Your task to perform on an android device: Toggle the flashlight Image 0: 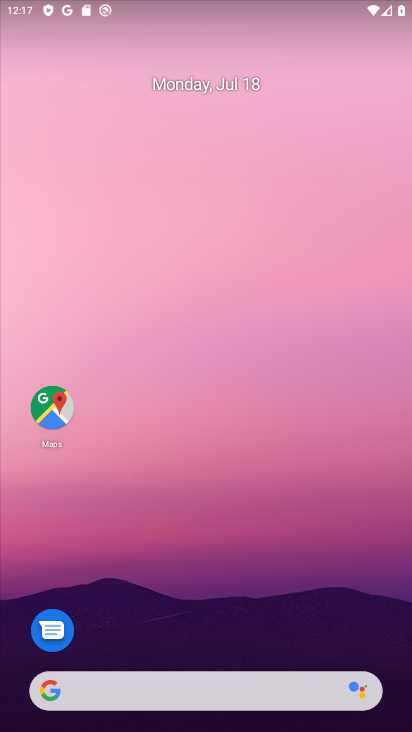
Step 0: drag from (207, 678) to (229, 14)
Your task to perform on an android device: Toggle the flashlight Image 1: 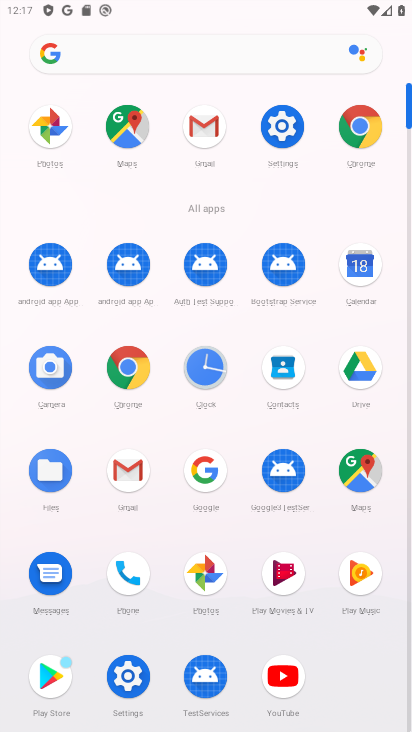
Step 1: task complete